Your task to perform on an android device: Open calendar and show me the first week of next month Image 0: 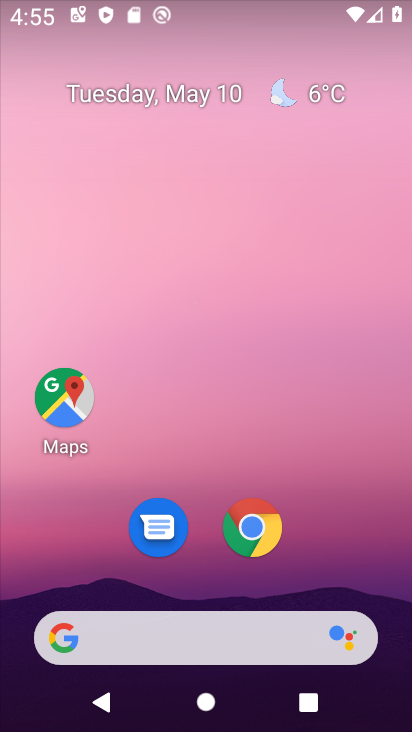
Step 0: drag from (329, 572) to (332, 10)
Your task to perform on an android device: Open calendar and show me the first week of next month Image 1: 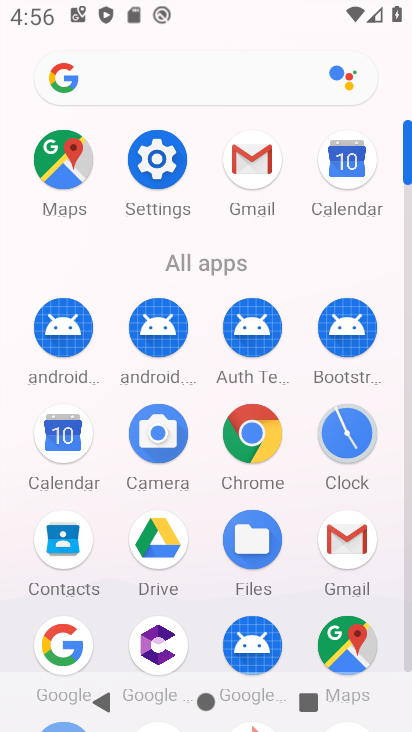
Step 1: click (363, 168)
Your task to perform on an android device: Open calendar and show me the first week of next month Image 2: 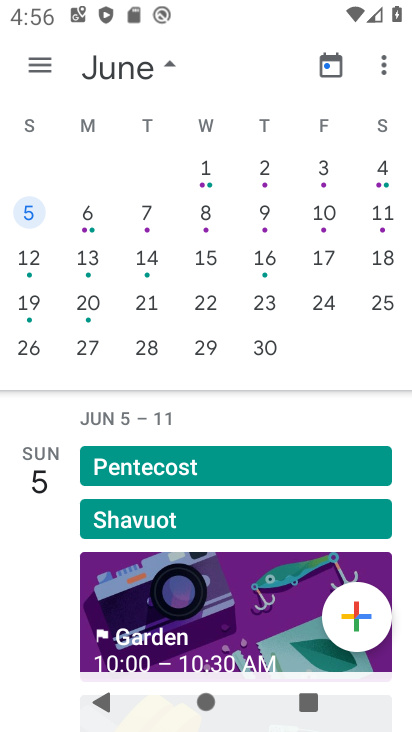
Step 2: click (208, 174)
Your task to perform on an android device: Open calendar and show me the first week of next month Image 3: 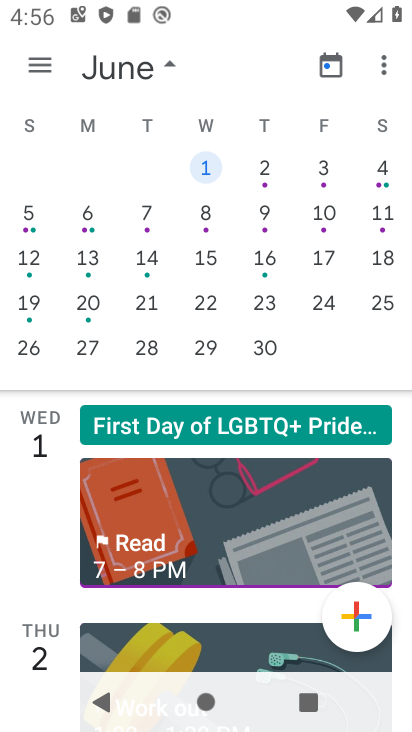
Step 3: task complete